Your task to perform on an android device: snooze an email in the gmail app Image 0: 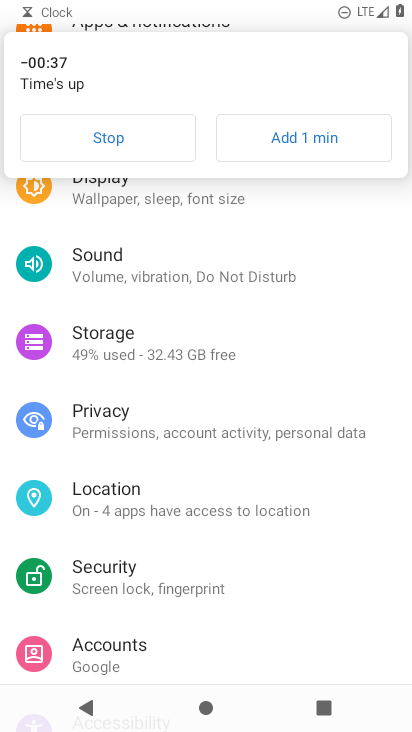
Step 0: click (105, 128)
Your task to perform on an android device: snooze an email in the gmail app Image 1: 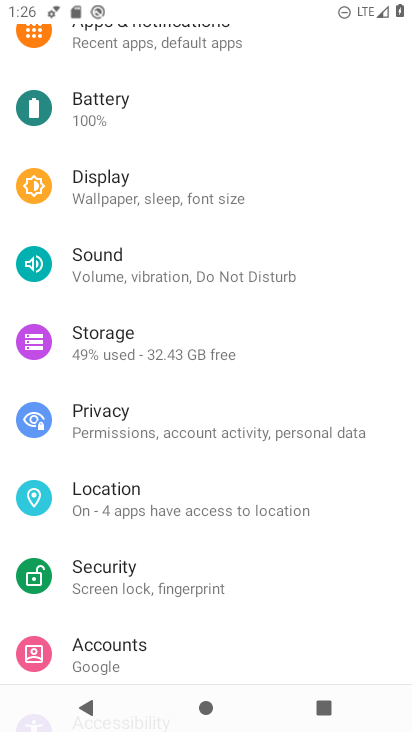
Step 1: press home button
Your task to perform on an android device: snooze an email in the gmail app Image 2: 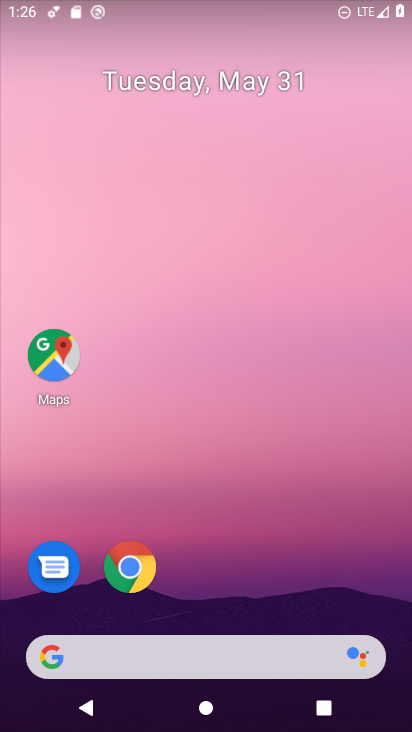
Step 2: drag from (201, 598) to (216, 231)
Your task to perform on an android device: snooze an email in the gmail app Image 3: 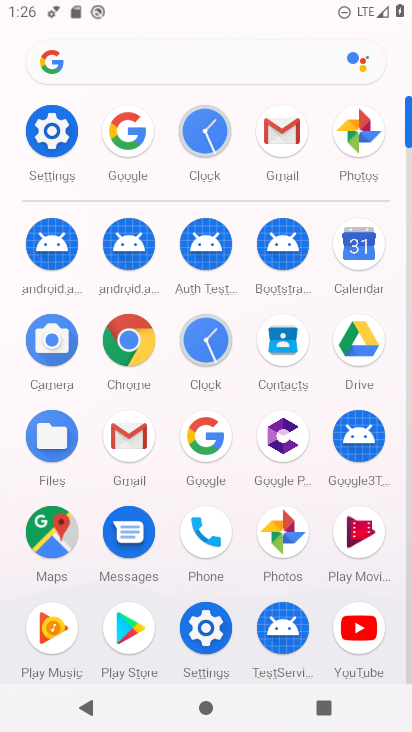
Step 3: click (266, 159)
Your task to perform on an android device: snooze an email in the gmail app Image 4: 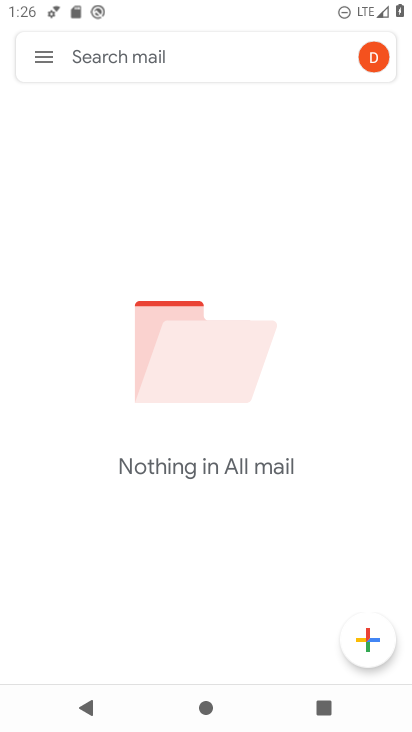
Step 4: click (39, 51)
Your task to perform on an android device: snooze an email in the gmail app Image 5: 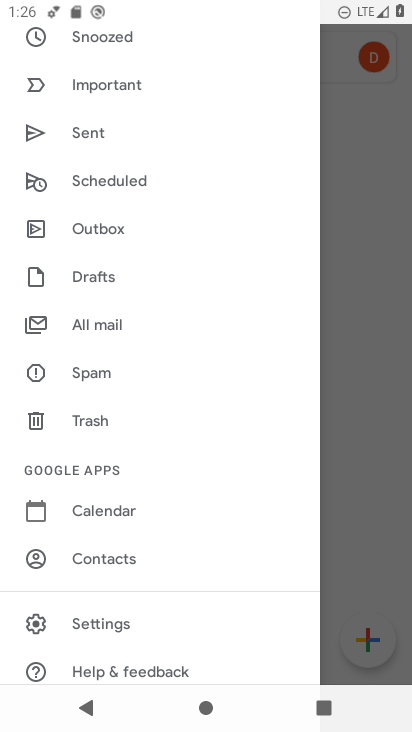
Step 5: click (121, 327)
Your task to perform on an android device: snooze an email in the gmail app Image 6: 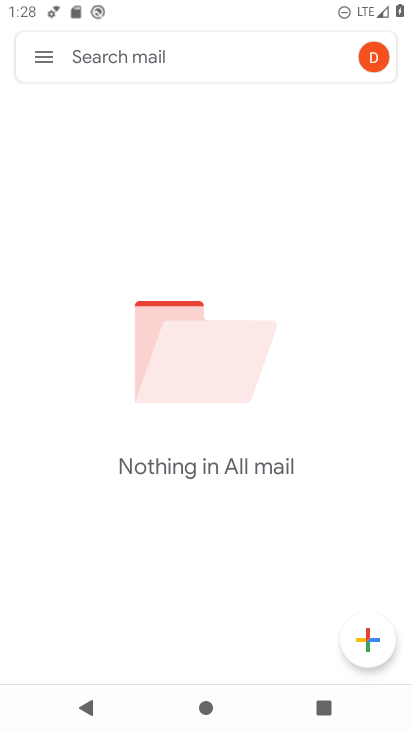
Step 6: click (47, 66)
Your task to perform on an android device: snooze an email in the gmail app Image 7: 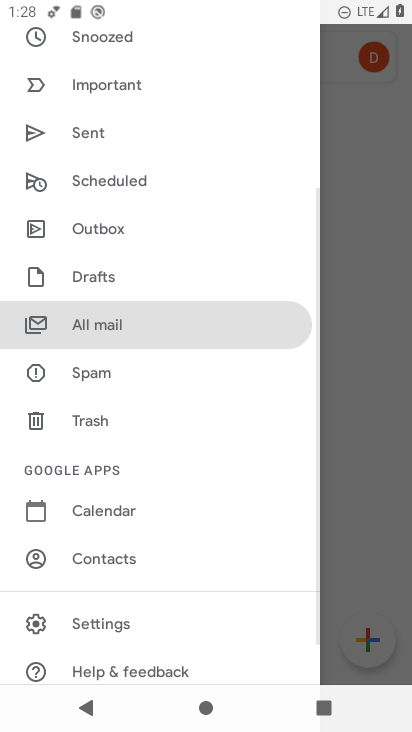
Step 7: drag from (105, 165) to (113, 333)
Your task to perform on an android device: snooze an email in the gmail app Image 8: 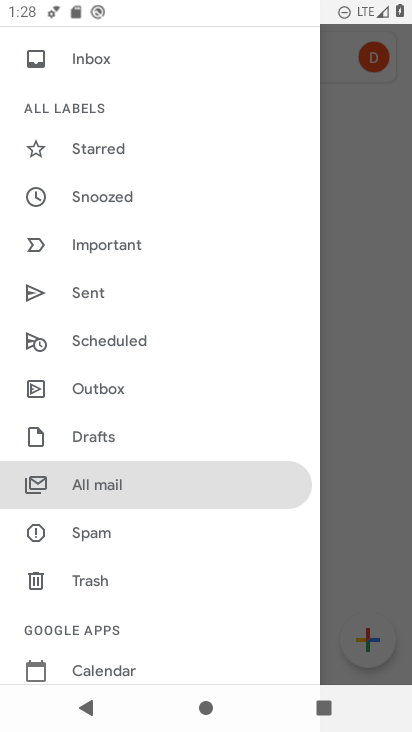
Step 8: drag from (109, 186) to (76, 515)
Your task to perform on an android device: snooze an email in the gmail app Image 9: 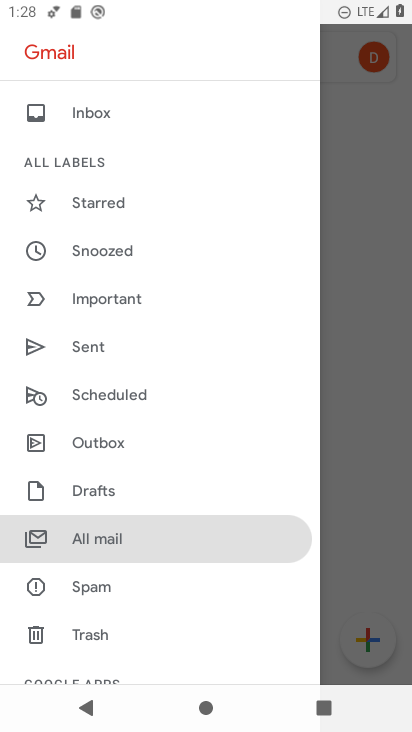
Step 9: click (98, 526)
Your task to perform on an android device: snooze an email in the gmail app Image 10: 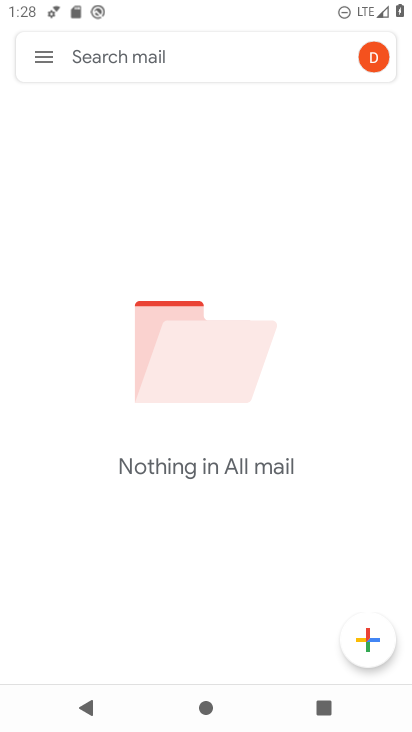
Step 10: task complete